Your task to perform on an android device: visit the assistant section in the google photos Image 0: 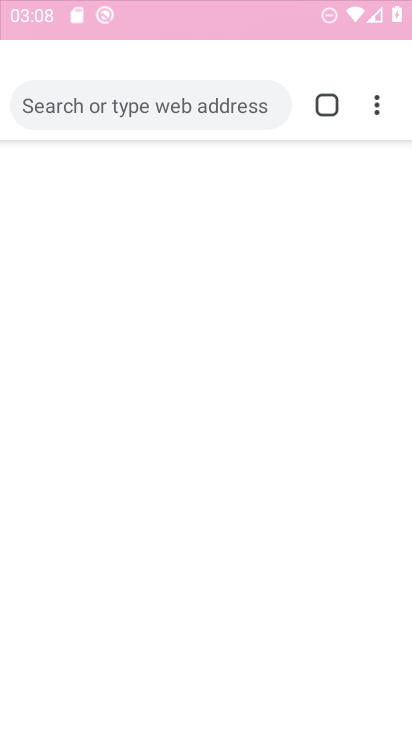
Step 0: click (237, 70)
Your task to perform on an android device: visit the assistant section in the google photos Image 1: 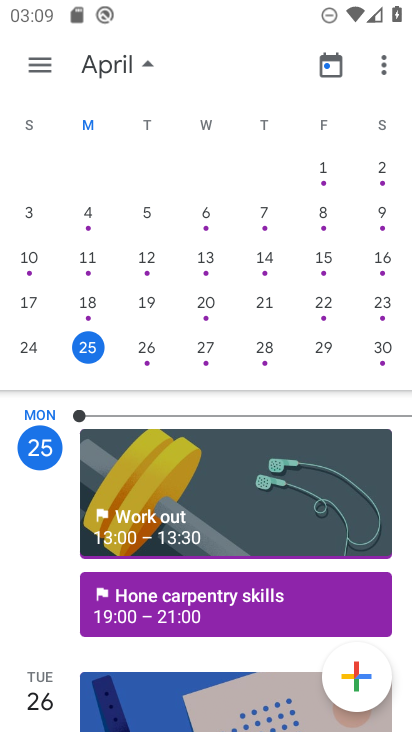
Step 1: drag from (45, 599) to (92, 346)
Your task to perform on an android device: visit the assistant section in the google photos Image 2: 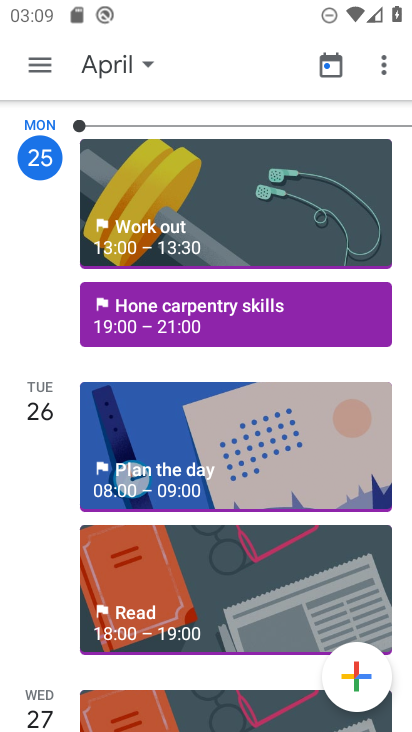
Step 2: press home button
Your task to perform on an android device: visit the assistant section in the google photos Image 3: 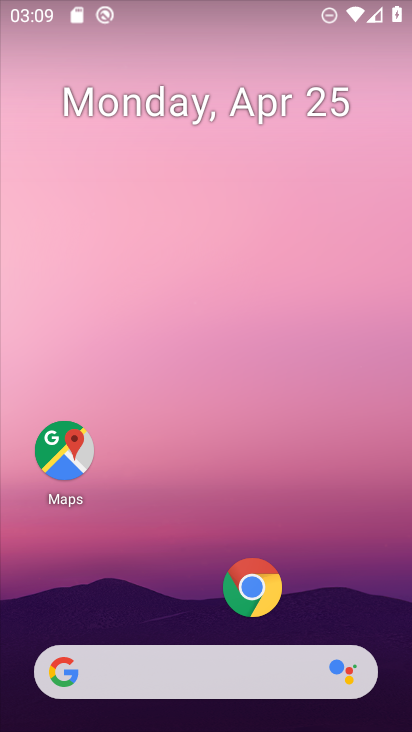
Step 3: drag from (199, 620) to (212, 53)
Your task to perform on an android device: visit the assistant section in the google photos Image 4: 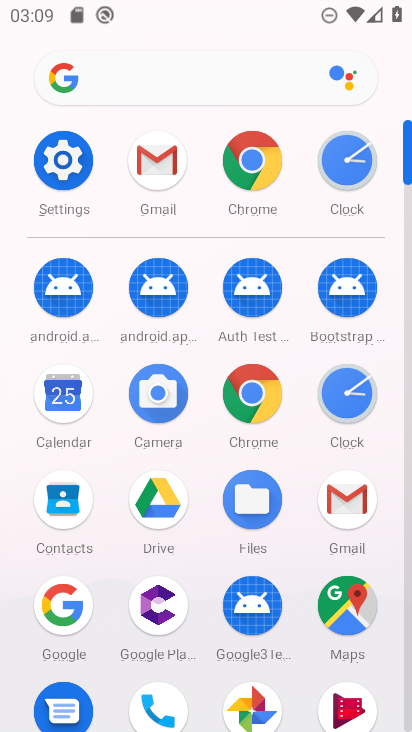
Step 4: click (252, 694)
Your task to perform on an android device: visit the assistant section in the google photos Image 5: 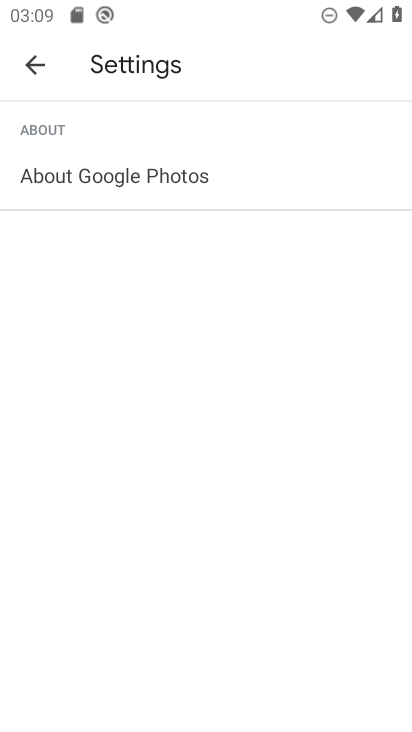
Step 5: click (40, 62)
Your task to perform on an android device: visit the assistant section in the google photos Image 6: 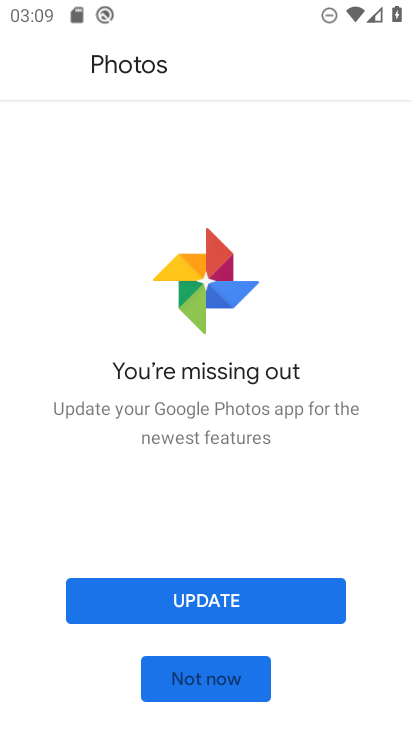
Step 6: click (215, 606)
Your task to perform on an android device: visit the assistant section in the google photos Image 7: 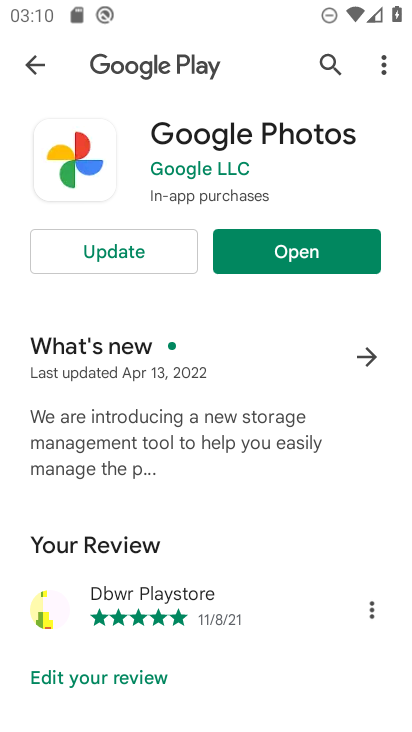
Step 7: click (123, 252)
Your task to perform on an android device: visit the assistant section in the google photos Image 8: 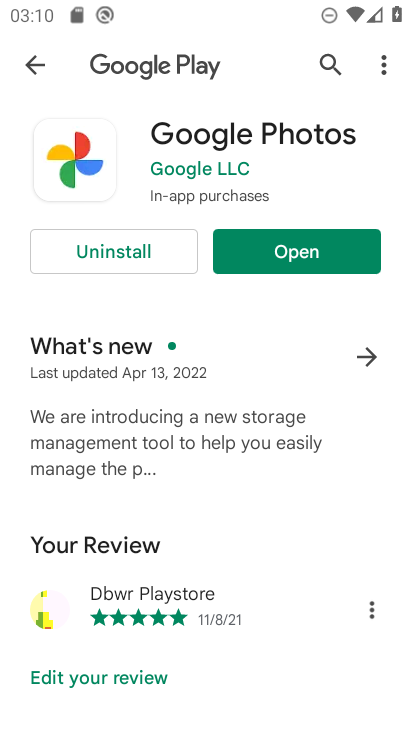
Step 8: click (293, 256)
Your task to perform on an android device: visit the assistant section in the google photos Image 9: 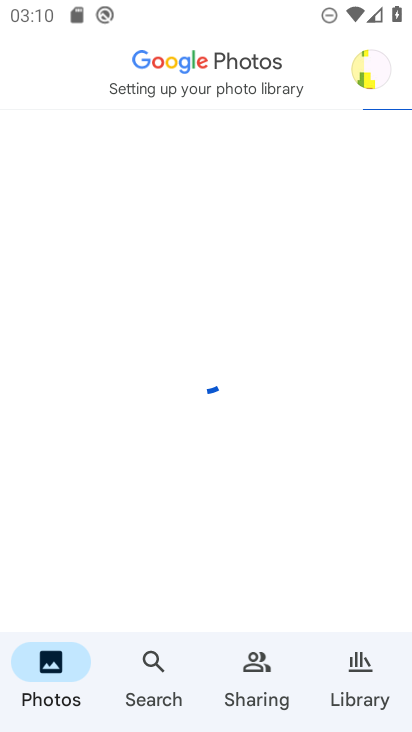
Step 9: click (150, 658)
Your task to perform on an android device: visit the assistant section in the google photos Image 10: 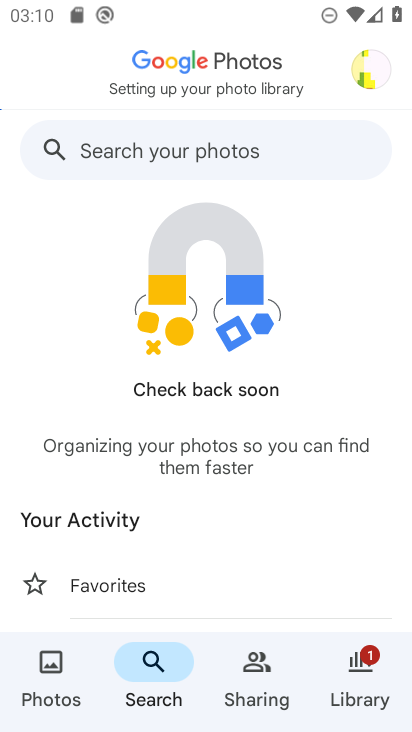
Step 10: drag from (174, 572) to (202, 116)
Your task to perform on an android device: visit the assistant section in the google photos Image 11: 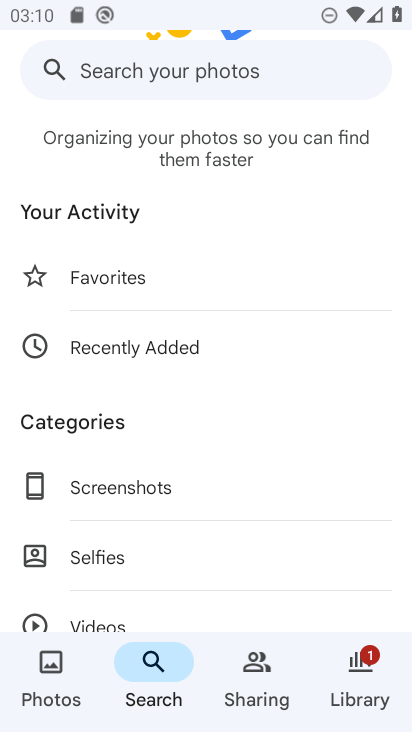
Step 11: drag from (175, 560) to (219, 75)
Your task to perform on an android device: visit the assistant section in the google photos Image 12: 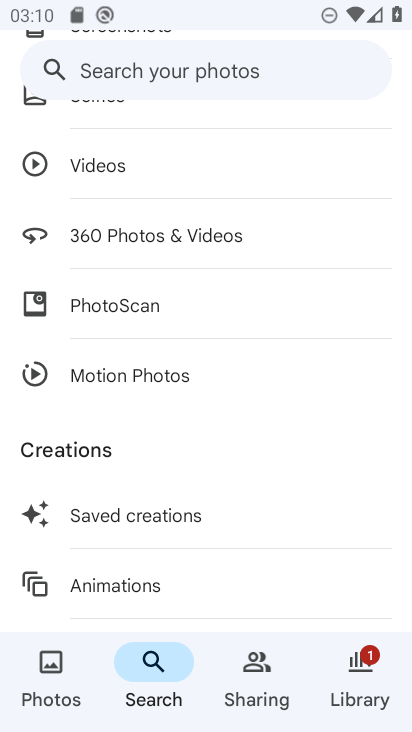
Step 12: drag from (178, 545) to (214, 185)
Your task to perform on an android device: visit the assistant section in the google photos Image 13: 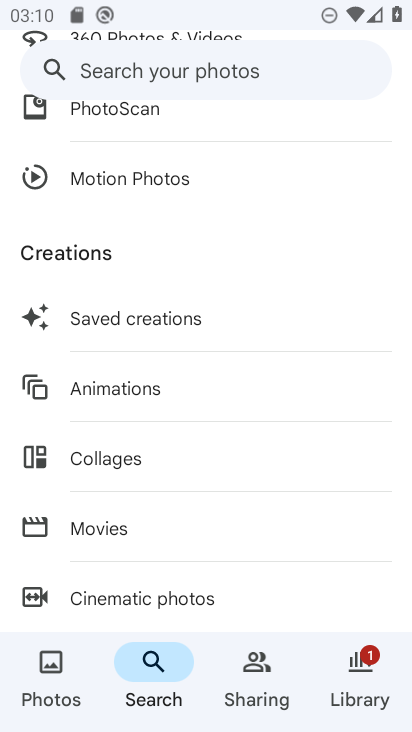
Step 13: drag from (188, 538) to (214, 131)
Your task to perform on an android device: visit the assistant section in the google photos Image 14: 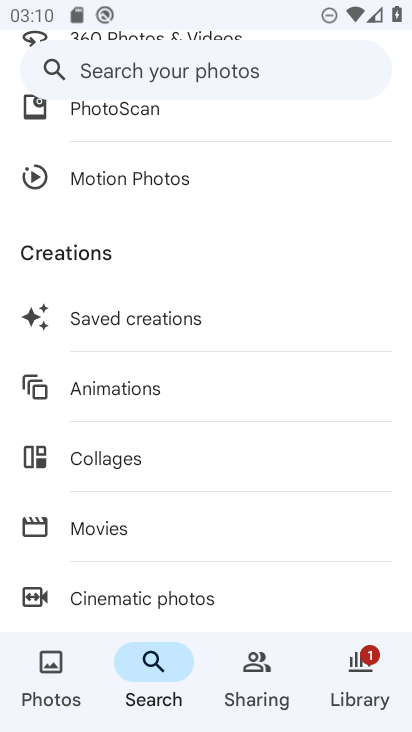
Step 14: click (123, 62)
Your task to perform on an android device: visit the assistant section in the google photos Image 15: 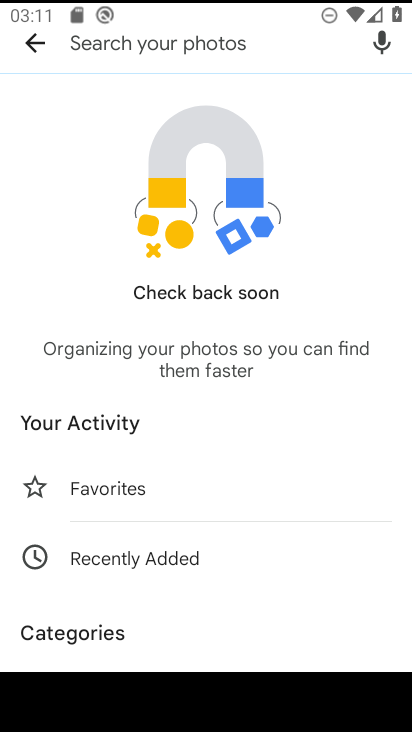
Step 15: type "assistant"
Your task to perform on an android device: visit the assistant section in the google photos Image 16: 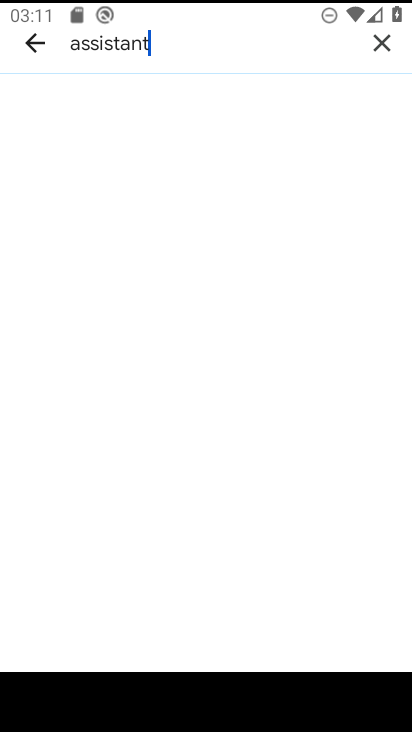
Step 16: task complete